Your task to perform on an android device: Open Wikipedia Image 0: 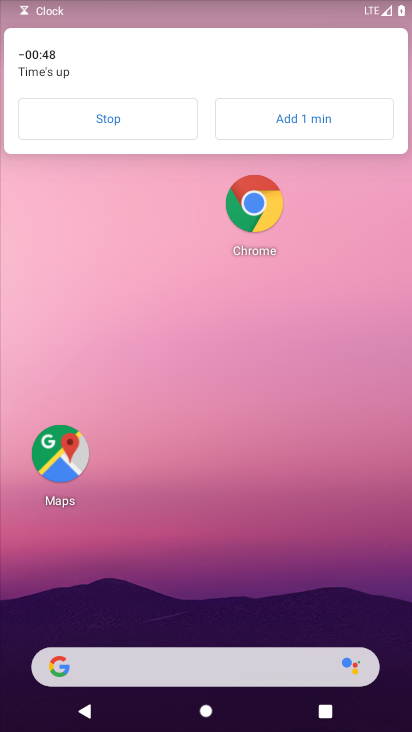
Step 0: click (242, 245)
Your task to perform on an android device: Open Wikipedia Image 1: 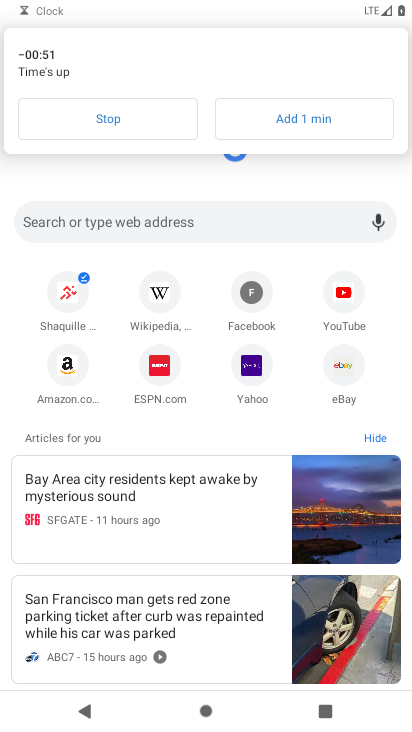
Step 1: click (121, 121)
Your task to perform on an android device: Open Wikipedia Image 2: 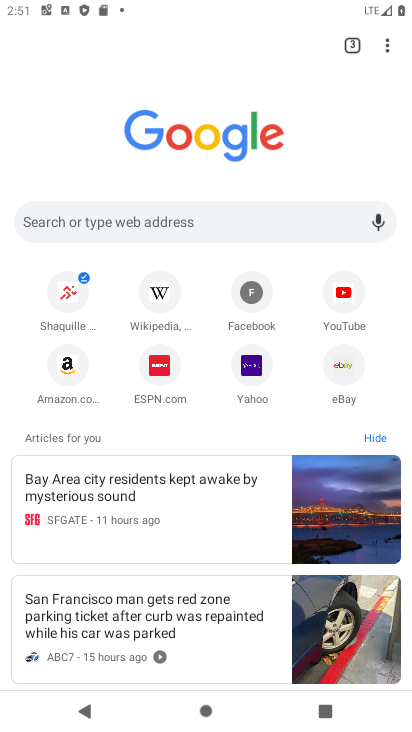
Step 2: click (129, 297)
Your task to perform on an android device: Open Wikipedia Image 3: 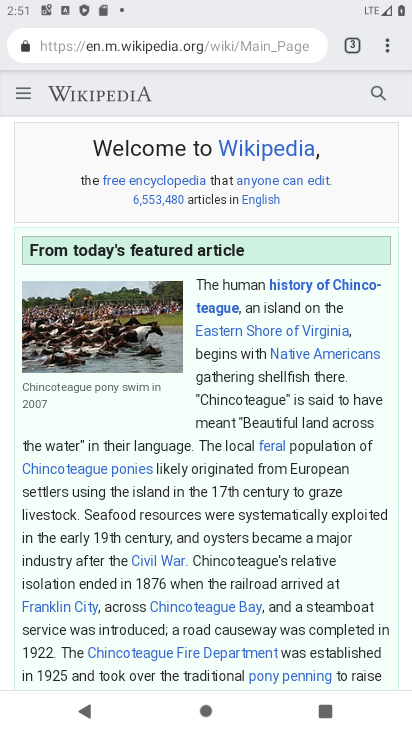
Step 3: task complete